Your task to perform on an android device: turn off airplane mode Image 0: 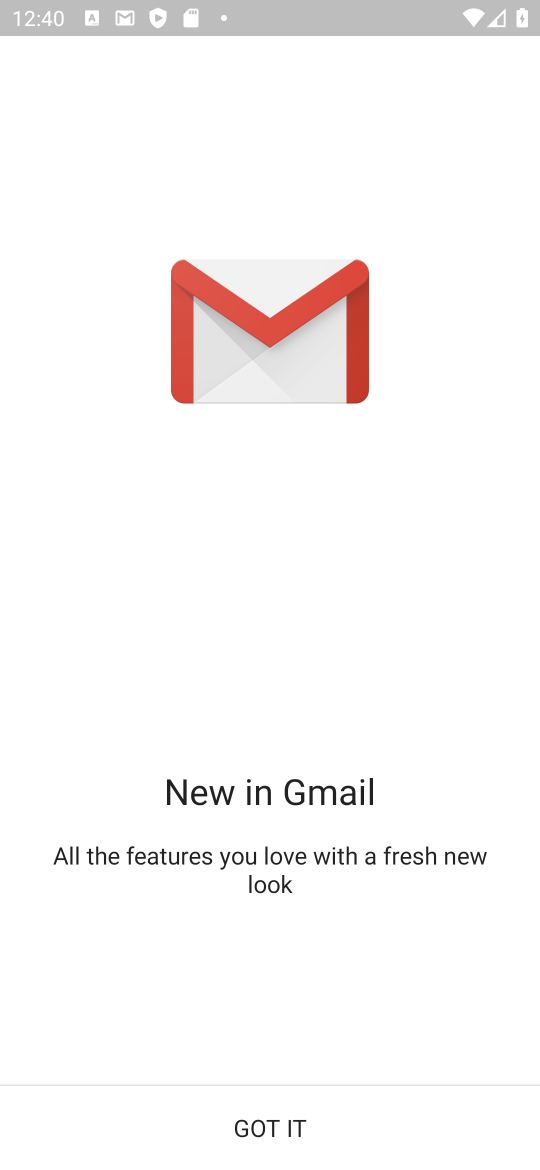
Step 0: press home button
Your task to perform on an android device: turn off airplane mode Image 1: 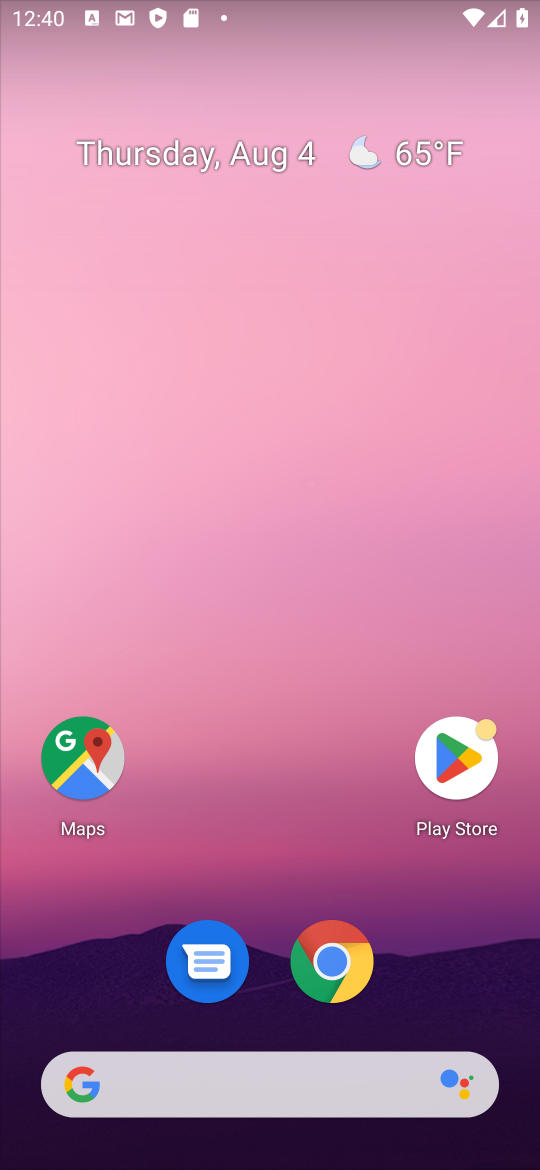
Step 1: drag from (269, 863) to (277, 2)
Your task to perform on an android device: turn off airplane mode Image 2: 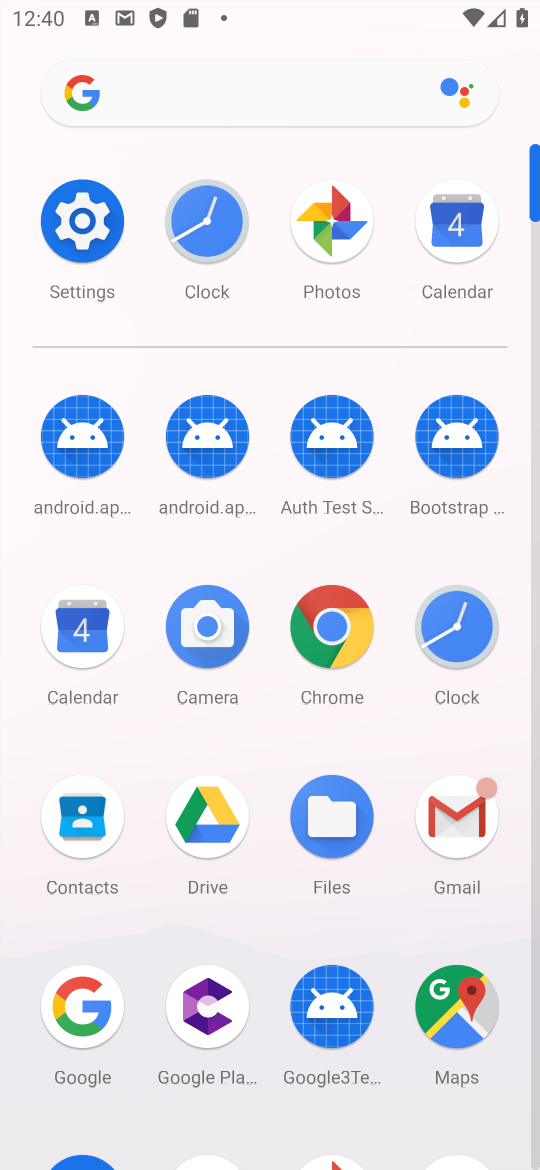
Step 2: click (84, 220)
Your task to perform on an android device: turn off airplane mode Image 3: 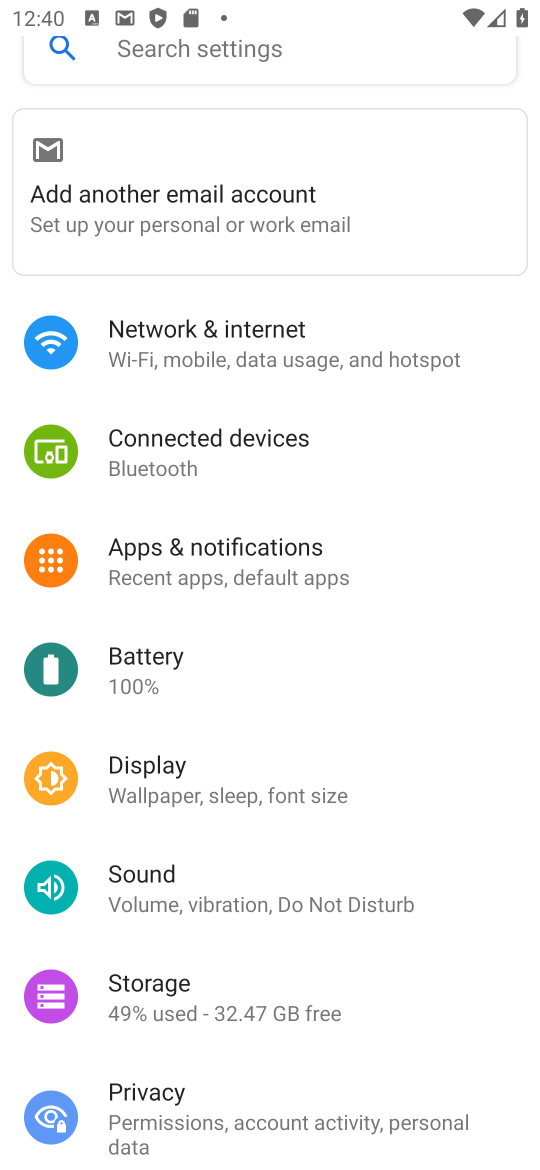
Step 3: click (215, 351)
Your task to perform on an android device: turn off airplane mode Image 4: 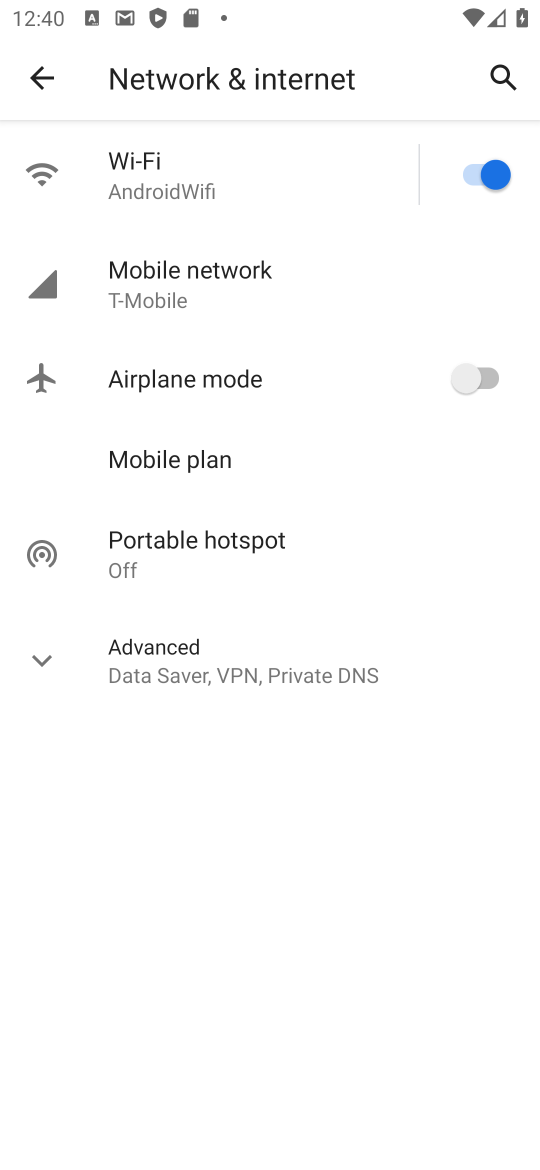
Step 4: task complete